Your task to perform on an android device: Search for sushi restaurants on Maps Image 0: 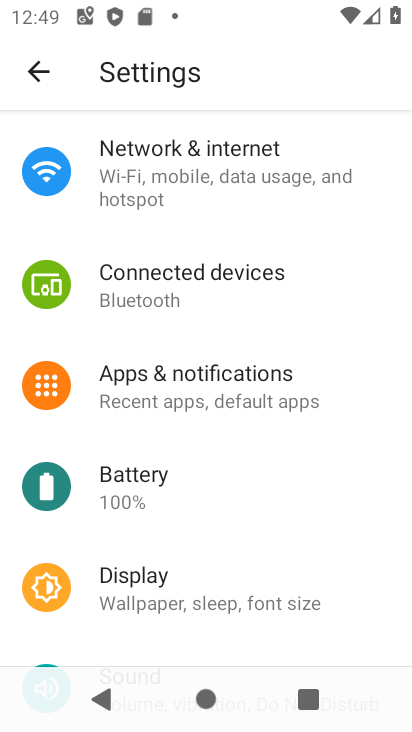
Step 0: press home button
Your task to perform on an android device: Search for sushi restaurants on Maps Image 1: 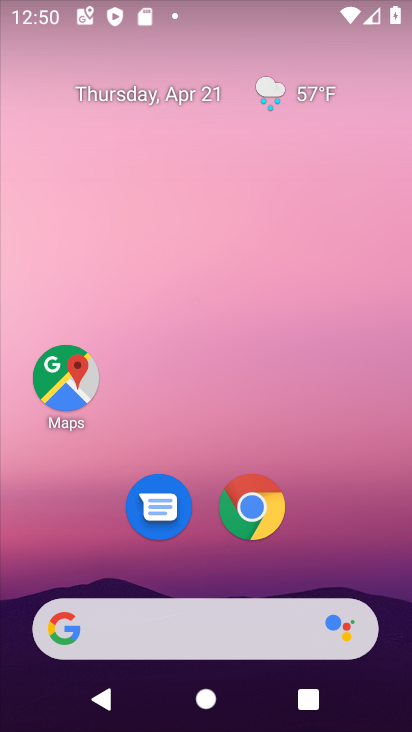
Step 1: click (69, 381)
Your task to perform on an android device: Search for sushi restaurants on Maps Image 2: 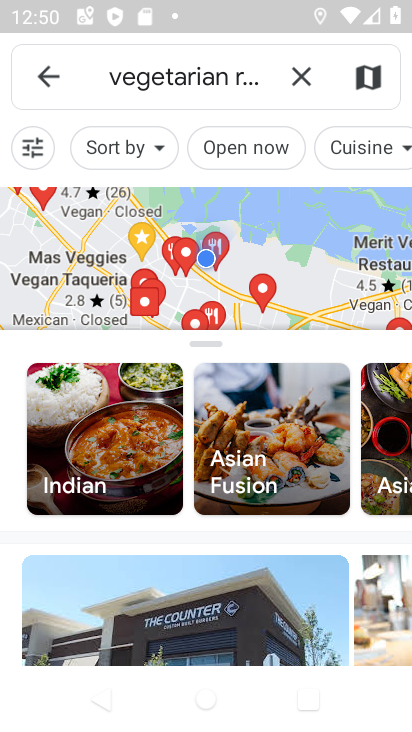
Step 2: click (306, 76)
Your task to perform on an android device: Search for sushi restaurants on Maps Image 3: 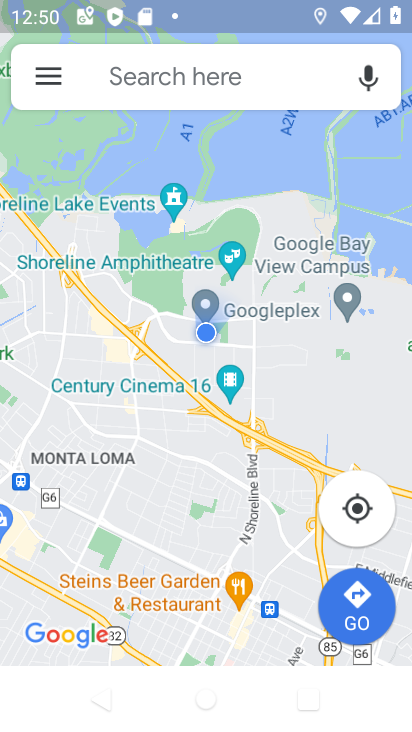
Step 3: click (251, 82)
Your task to perform on an android device: Search for sushi restaurants on Maps Image 4: 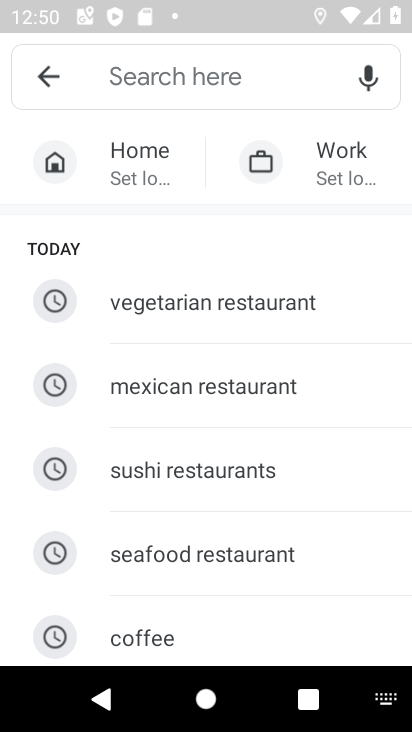
Step 4: type "sushi restaurants"
Your task to perform on an android device: Search for sushi restaurants on Maps Image 5: 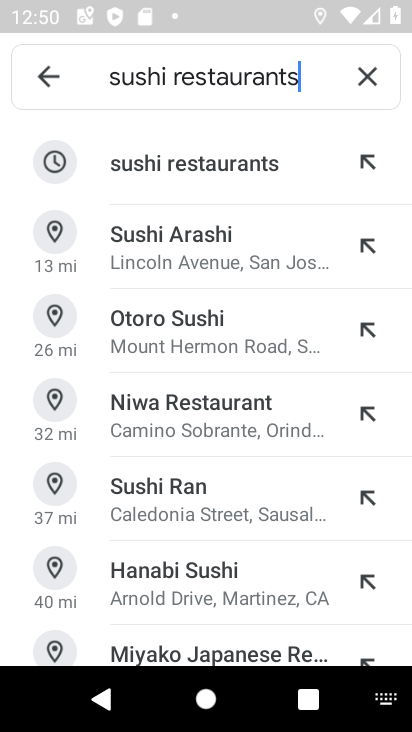
Step 5: click (241, 162)
Your task to perform on an android device: Search for sushi restaurants on Maps Image 6: 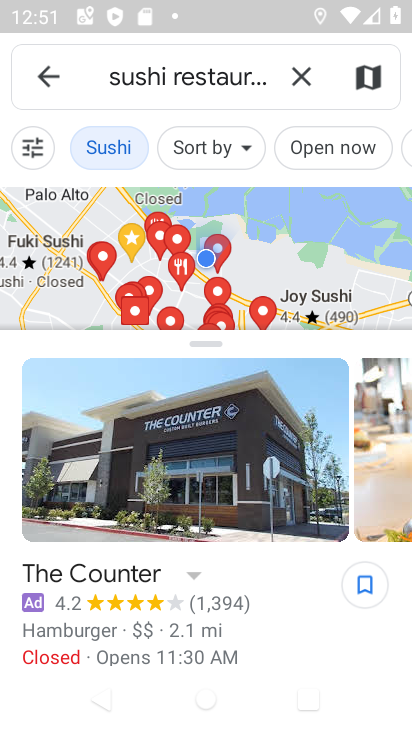
Step 6: task complete